Your task to perform on an android device: Open the phone app and click the voicemail tab. Image 0: 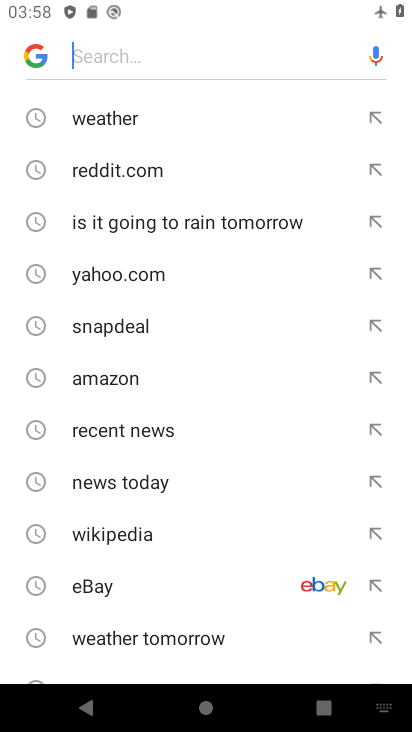
Step 0: press home button
Your task to perform on an android device: Open the phone app and click the voicemail tab. Image 1: 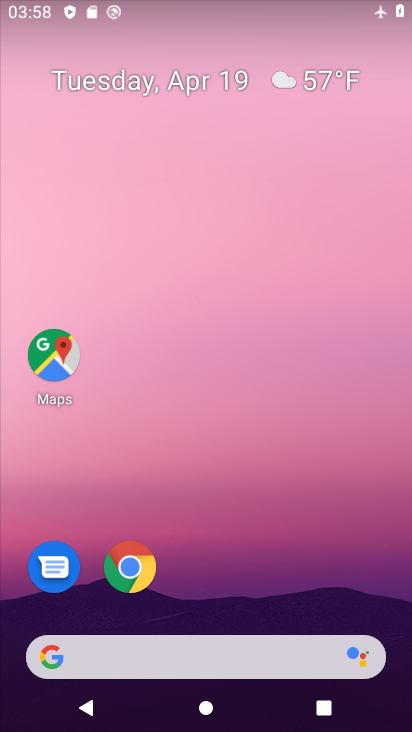
Step 1: drag from (366, 578) to (344, 214)
Your task to perform on an android device: Open the phone app and click the voicemail tab. Image 2: 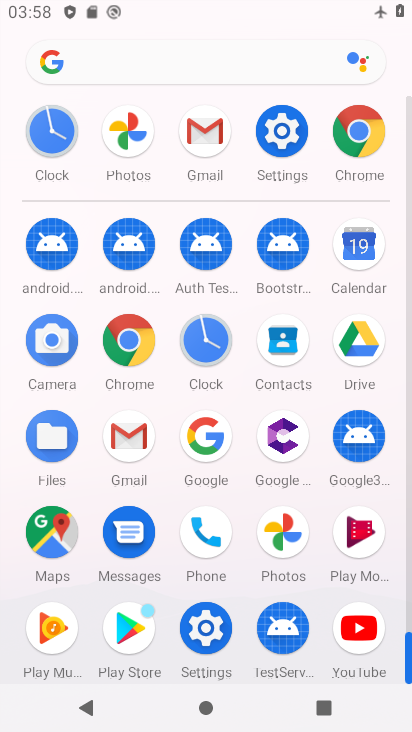
Step 2: click (202, 562)
Your task to perform on an android device: Open the phone app and click the voicemail tab. Image 3: 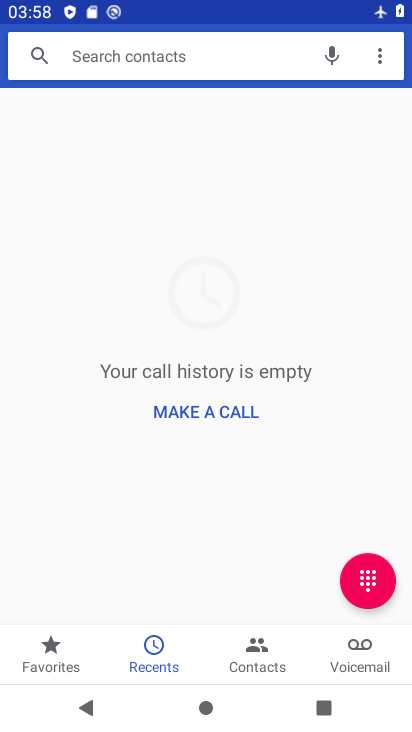
Step 3: click (356, 655)
Your task to perform on an android device: Open the phone app and click the voicemail tab. Image 4: 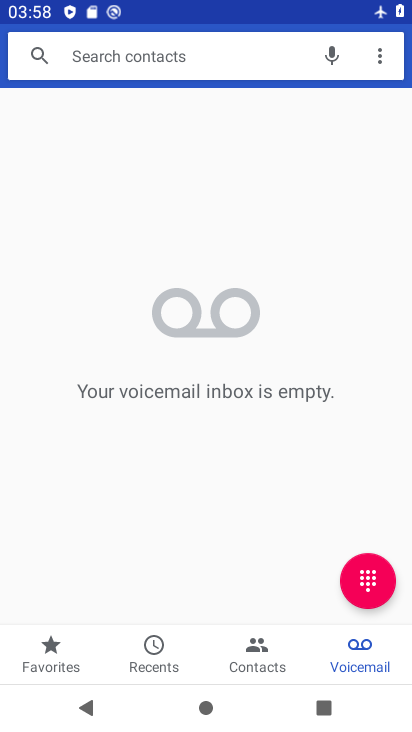
Step 4: task complete